Your task to perform on an android device: find photos in the google photos app Image 0: 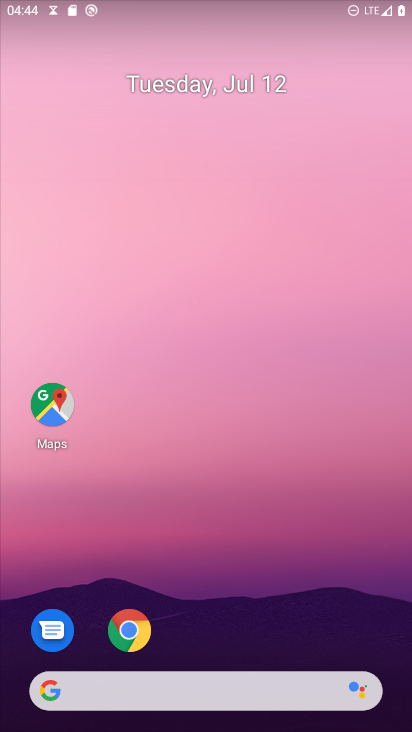
Step 0: drag from (145, 690) to (213, 7)
Your task to perform on an android device: find photos in the google photos app Image 1: 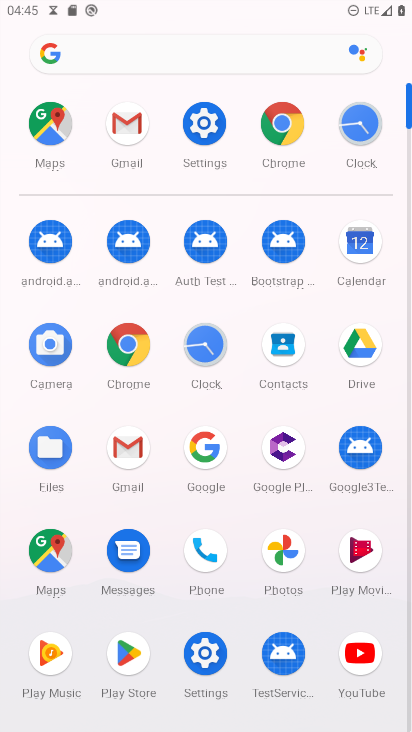
Step 1: click (270, 543)
Your task to perform on an android device: find photos in the google photos app Image 2: 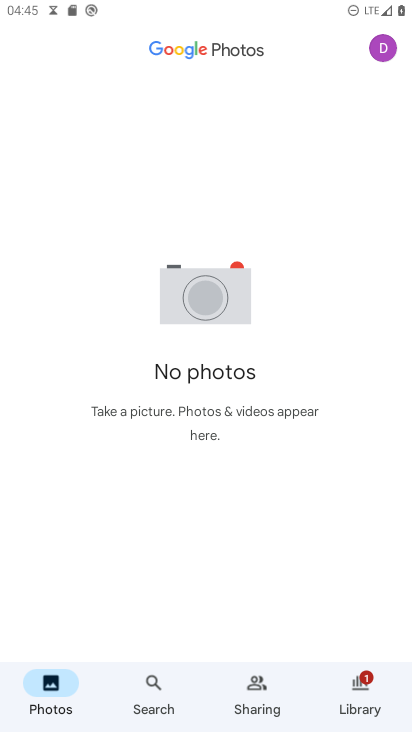
Step 2: task complete